Your task to perform on an android device: Turn off the flashlight Image 0: 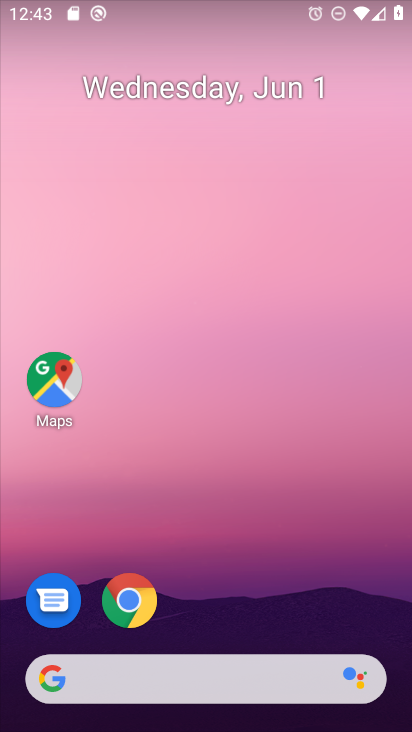
Step 0: drag from (222, 630) to (242, 86)
Your task to perform on an android device: Turn off the flashlight Image 1: 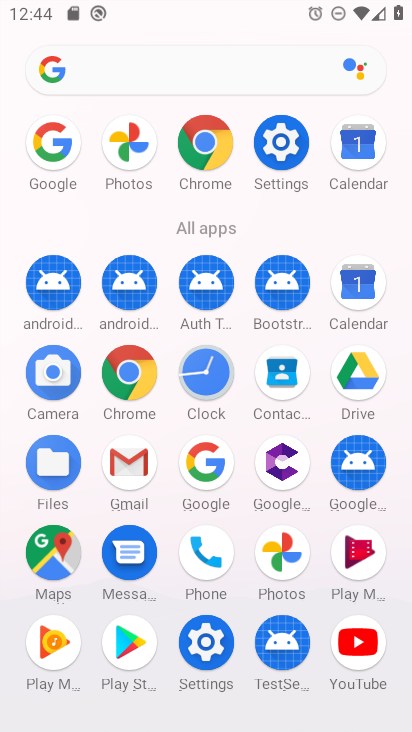
Step 1: click (280, 133)
Your task to perform on an android device: Turn off the flashlight Image 2: 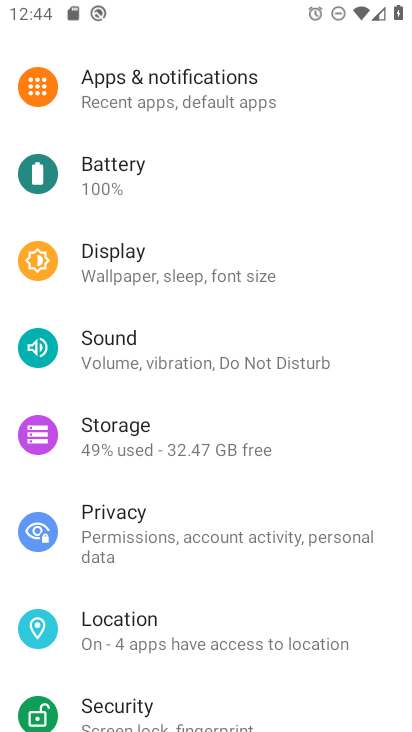
Step 2: drag from (192, 136) to (252, 613)
Your task to perform on an android device: Turn off the flashlight Image 3: 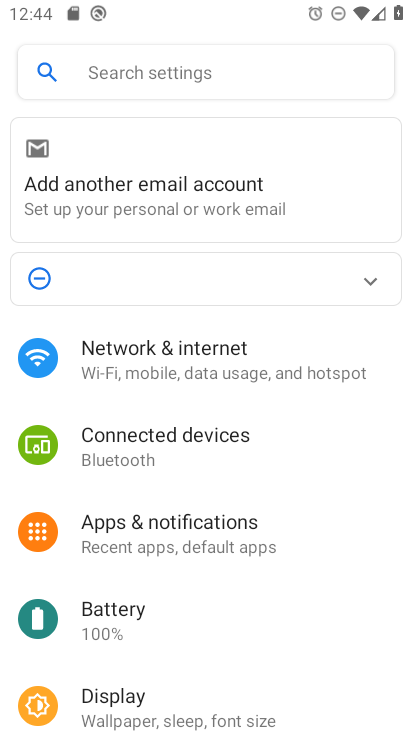
Step 3: click (179, 76)
Your task to perform on an android device: Turn off the flashlight Image 4: 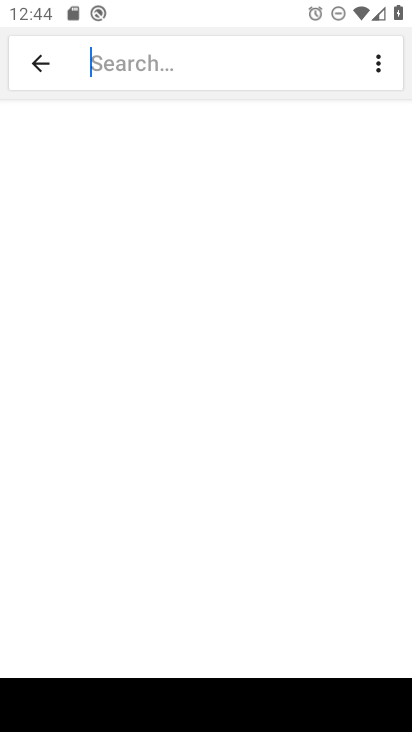
Step 4: type "flashlight"
Your task to perform on an android device: Turn off the flashlight Image 5: 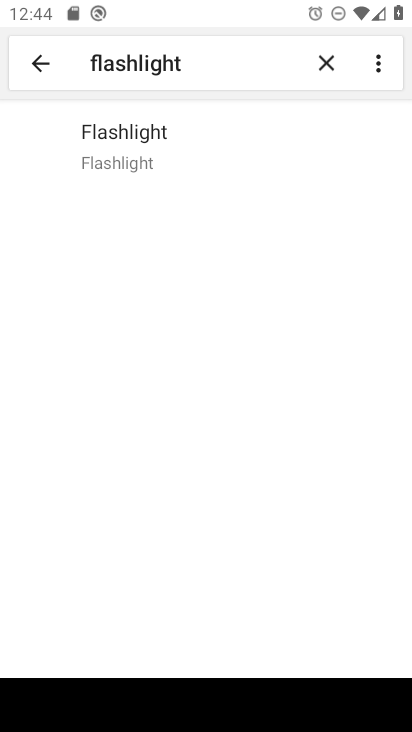
Step 5: click (161, 151)
Your task to perform on an android device: Turn off the flashlight Image 6: 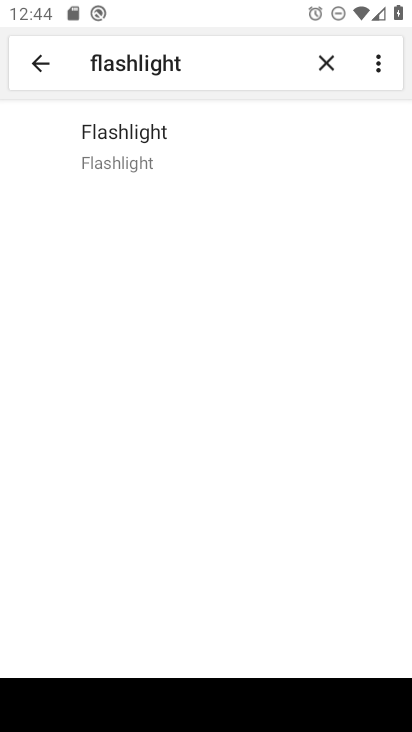
Step 6: click (170, 144)
Your task to perform on an android device: Turn off the flashlight Image 7: 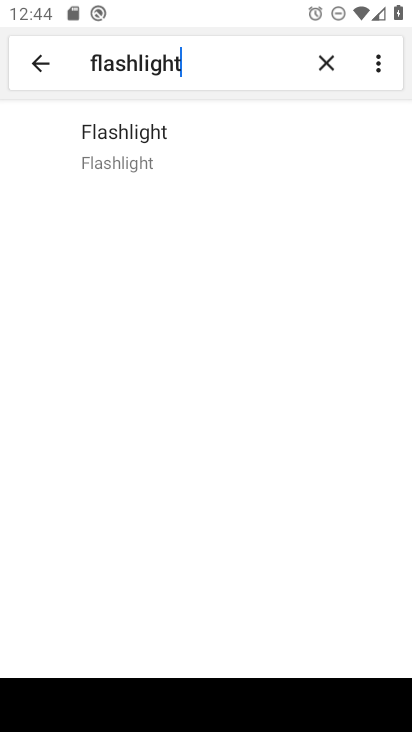
Step 7: click (176, 150)
Your task to perform on an android device: Turn off the flashlight Image 8: 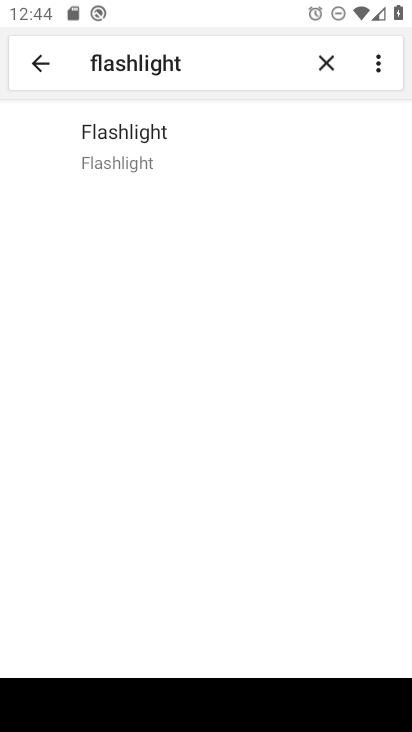
Step 8: task complete